Your task to perform on an android device: set the stopwatch Image 0: 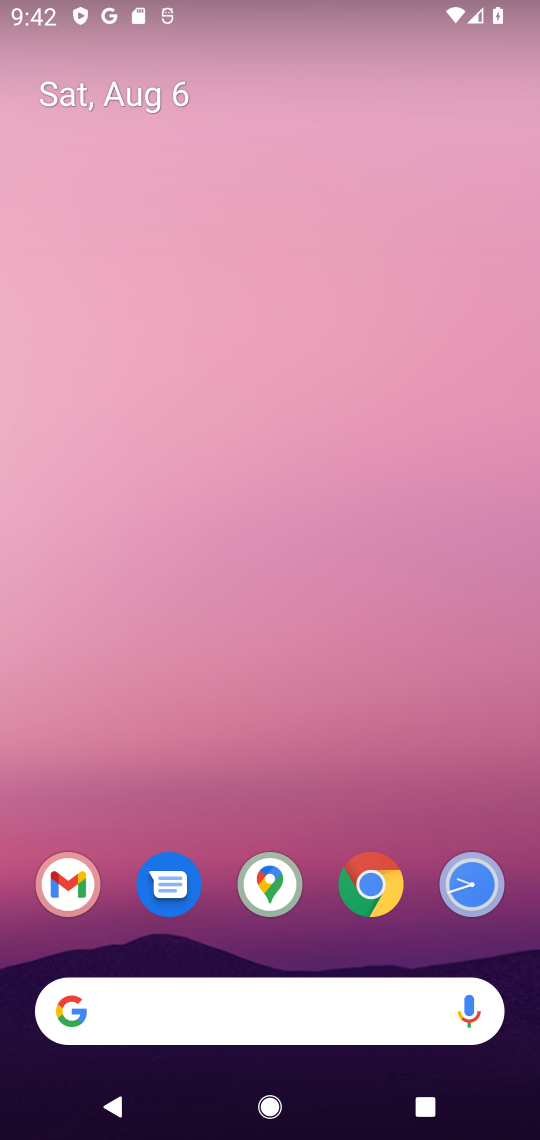
Step 0: click (472, 886)
Your task to perform on an android device: set the stopwatch Image 1: 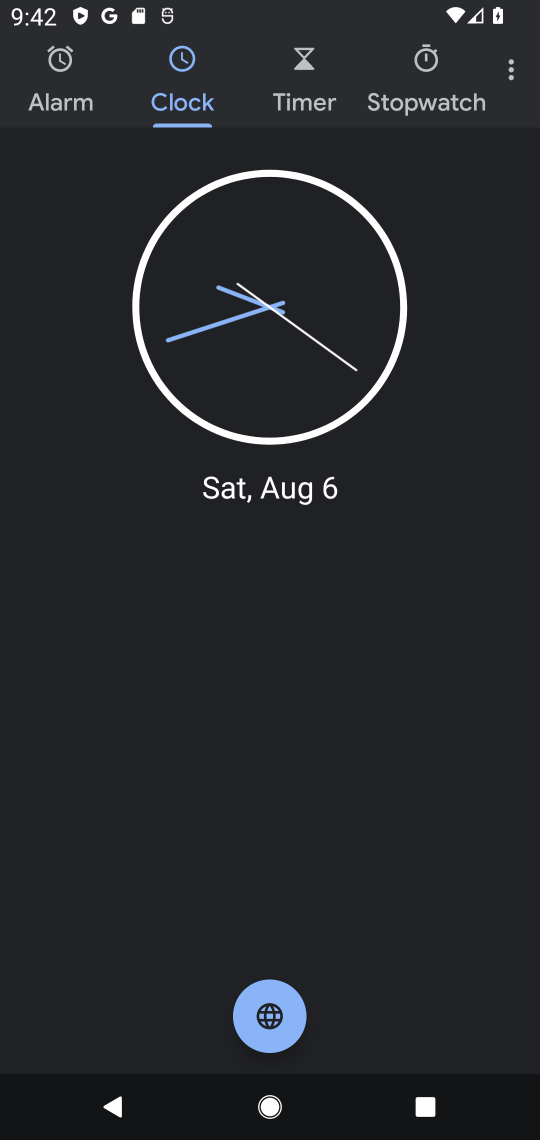
Step 1: click (426, 63)
Your task to perform on an android device: set the stopwatch Image 2: 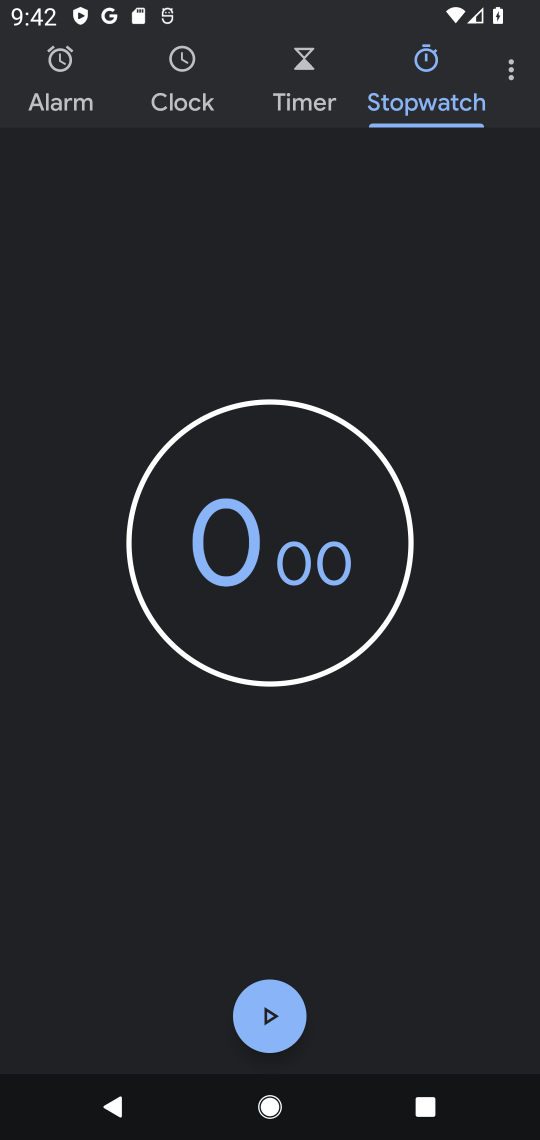
Step 2: task complete